Your task to perform on an android device: Open the map Image 0: 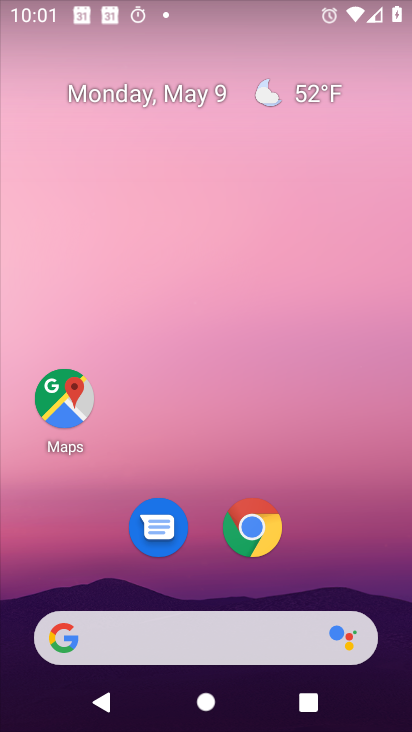
Step 0: click (207, 568)
Your task to perform on an android device: Open the map Image 1: 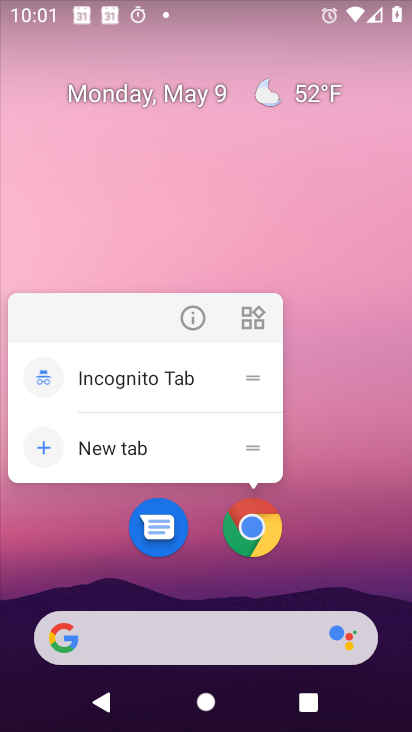
Step 1: click (251, 234)
Your task to perform on an android device: Open the map Image 2: 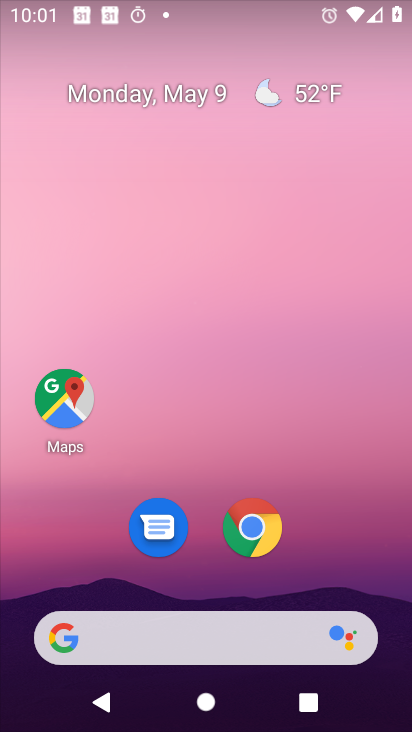
Step 2: click (53, 399)
Your task to perform on an android device: Open the map Image 3: 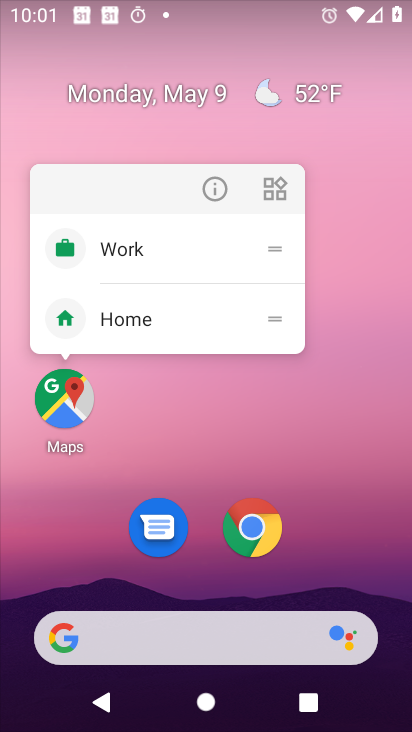
Step 3: click (54, 399)
Your task to perform on an android device: Open the map Image 4: 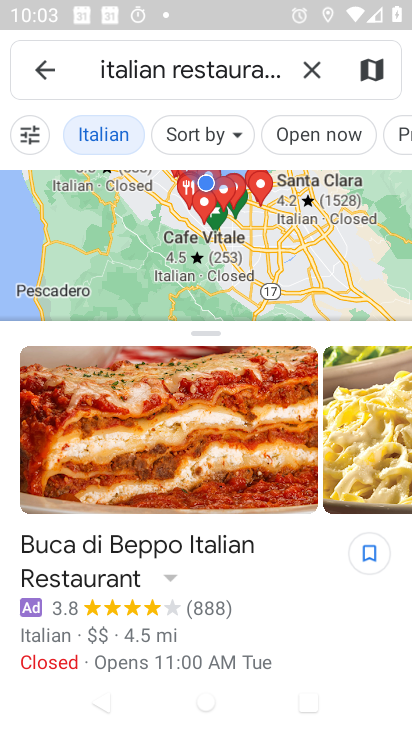
Step 4: task complete